Your task to perform on an android device: change the clock display to digital Image 0: 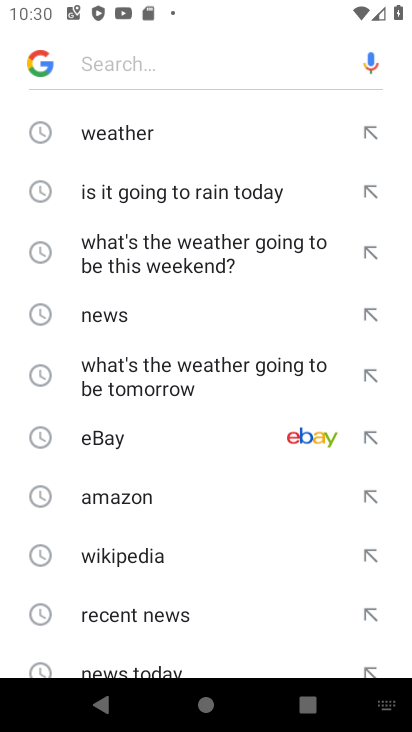
Step 0: press home button
Your task to perform on an android device: change the clock display to digital Image 1: 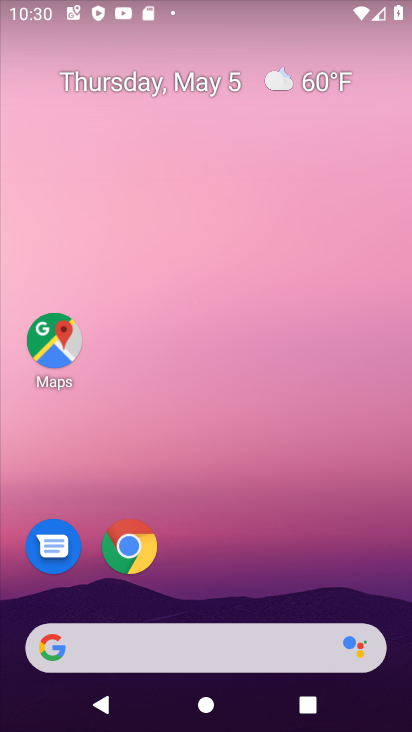
Step 1: drag from (227, 609) to (205, 38)
Your task to perform on an android device: change the clock display to digital Image 2: 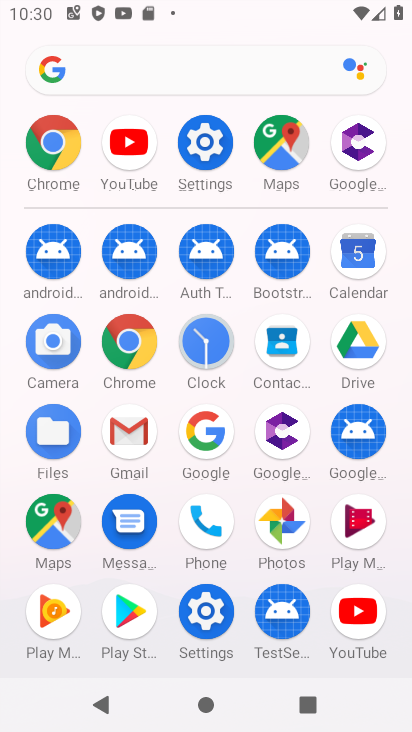
Step 2: click (192, 350)
Your task to perform on an android device: change the clock display to digital Image 3: 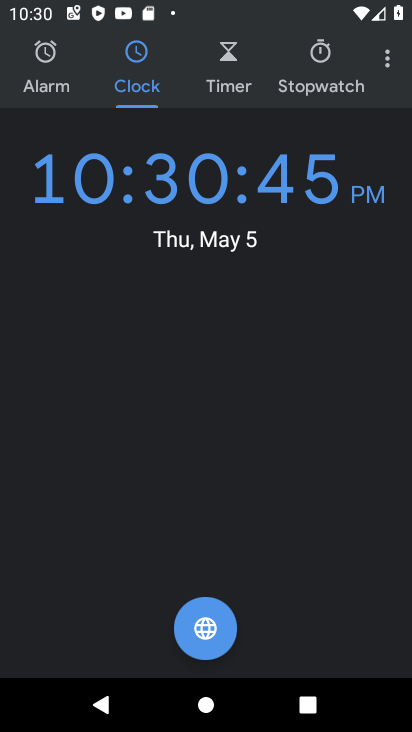
Step 3: click (383, 54)
Your task to perform on an android device: change the clock display to digital Image 4: 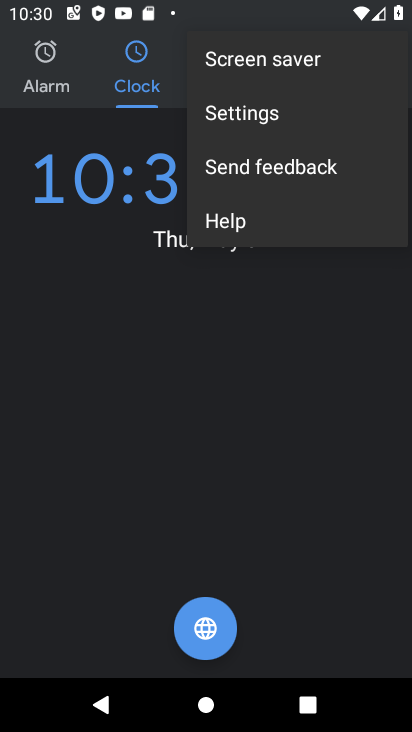
Step 4: click (332, 109)
Your task to perform on an android device: change the clock display to digital Image 5: 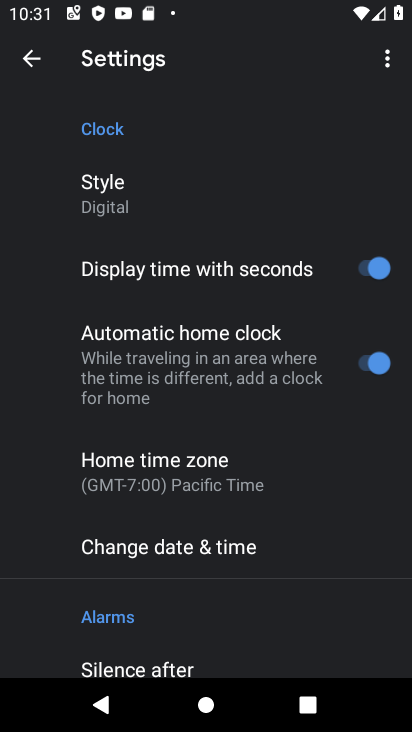
Step 5: click (190, 200)
Your task to perform on an android device: change the clock display to digital Image 6: 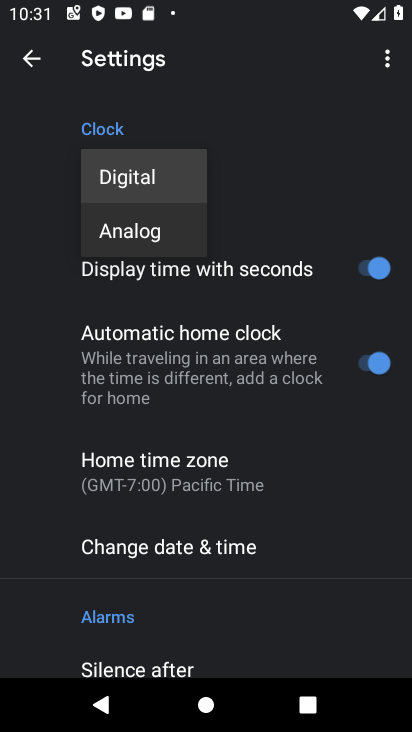
Step 6: click (140, 181)
Your task to perform on an android device: change the clock display to digital Image 7: 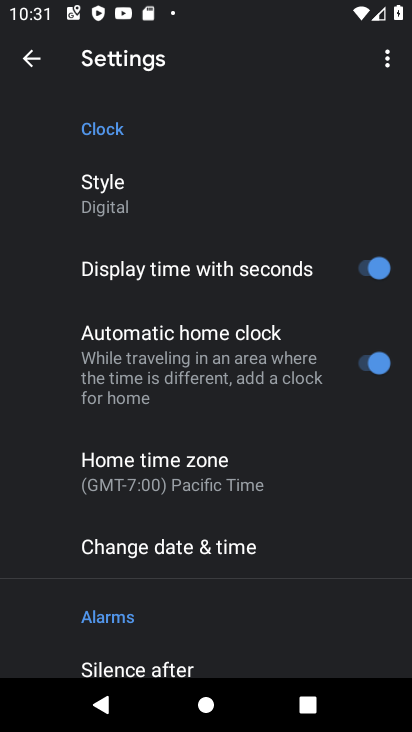
Step 7: task complete